Your task to perform on an android device: Open sound settings Image 0: 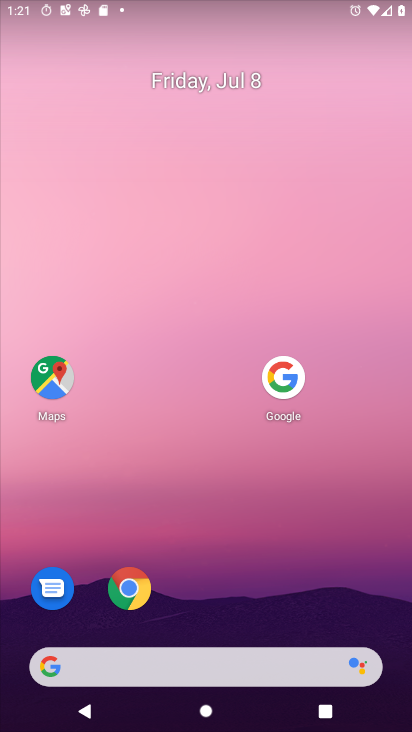
Step 0: drag from (198, 661) to (327, 73)
Your task to perform on an android device: Open sound settings Image 1: 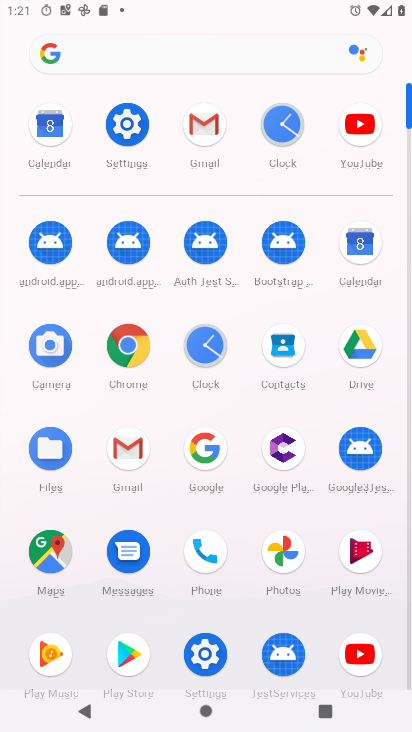
Step 1: click (125, 122)
Your task to perform on an android device: Open sound settings Image 2: 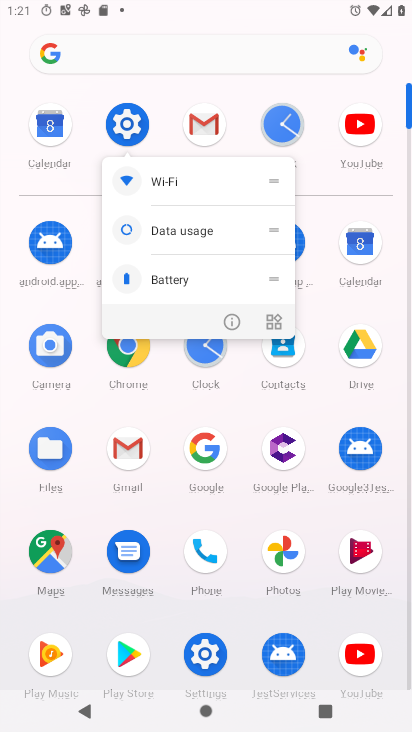
Step 2: click (129, 120)
Your task to perform on an android device: Open sound settings Image 3: 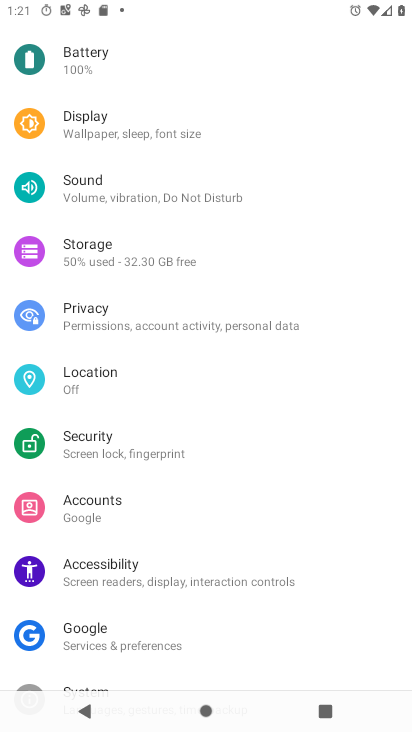
Step 3: click (103, 192)
Your task to perform on an android device: Open sound settings Image 4: 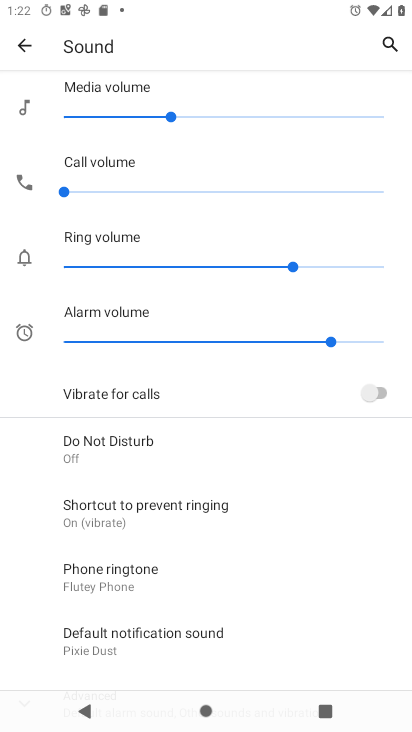
Step 4: task complete